Your task to perform on an android device: remove spam from my inbox in the gmail app Image 0: 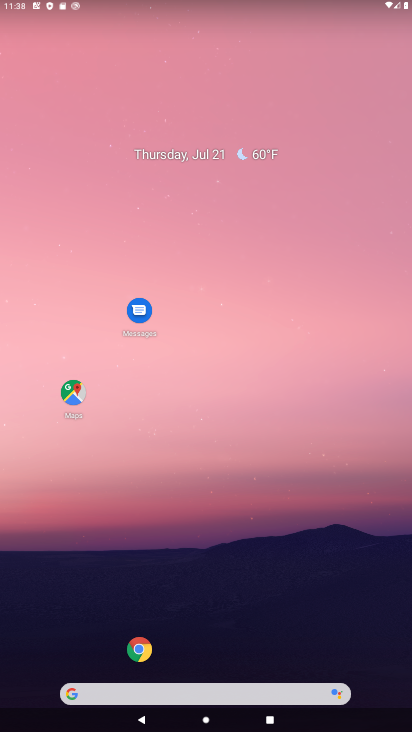
Step 0: drag from (17, 670) to (281, 62)
Your task to perform on an android device: remove spam from my inbox in the gmail app Image 1: 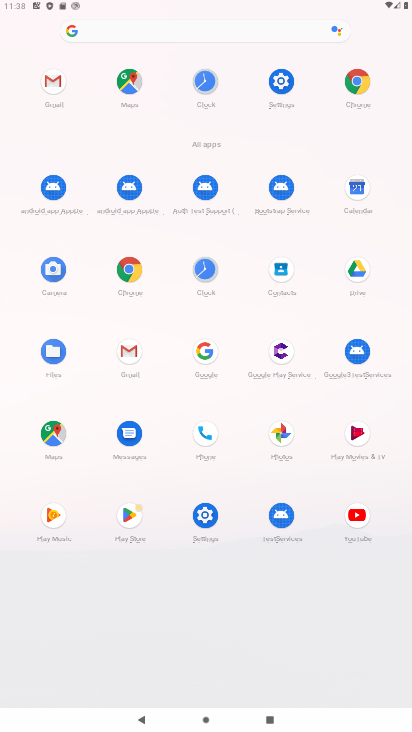
Step 1: click (123, 360)
Your task to perform on an android device: remove spam from my inbox in the gmail app Image 2: 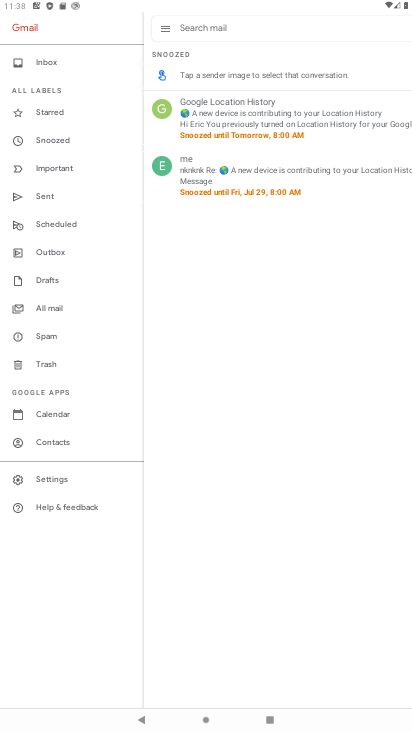
Step 2: click (54, 328)
Your task to perform on an android device: remove spam from my inbox in the gmail app Image 3: 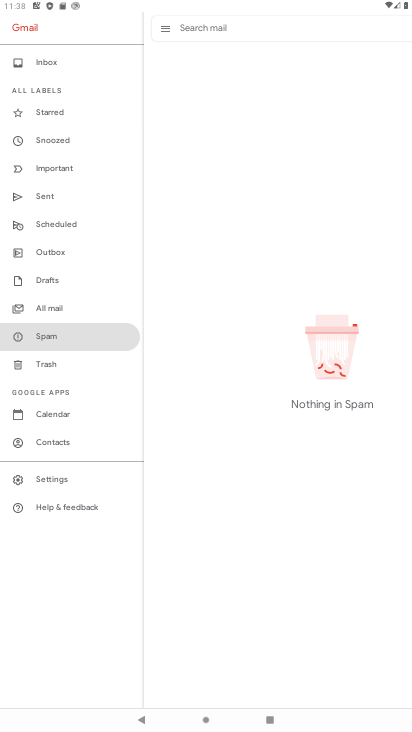
Step 3: task complete